Your task to perform on an android device: turn on wifi Image 0: 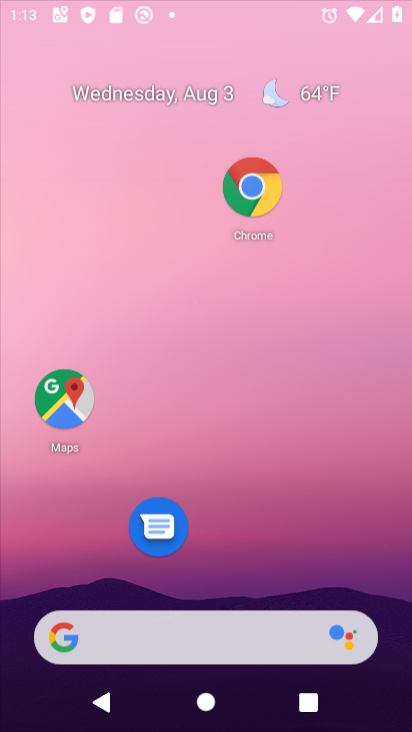
Step 0: click (403, 306)
Your task to perform on an android device: turn on wifi Image 1: 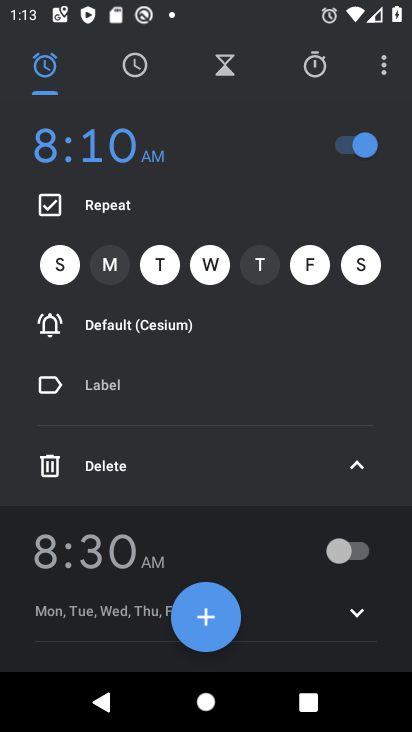
Step 1: press home button
Your task to perform on an android device: turn on wifi Image 2: 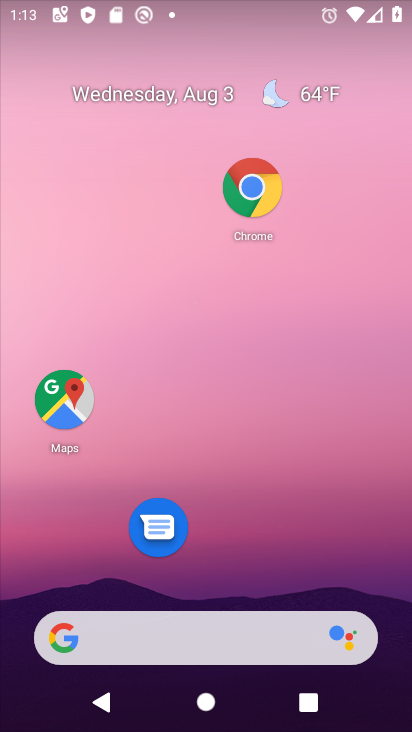
Step 2: drag from (236, 583) to (315, 5)
Your task to perform on an android device: turn on wifi Image 3: 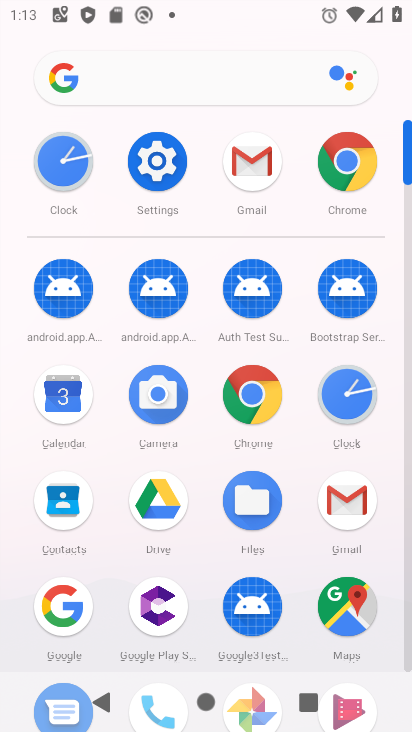
Step 3: click (154, 181)
Your task to perform on an android device: turn on wifi Image 4: 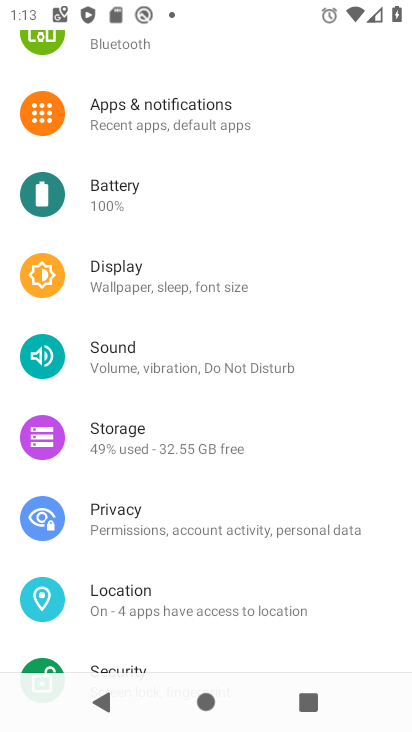
Step 4: drag from (163, 181) to (162, 725)
Your task to perform on an android device: turn on wifi Image 5: 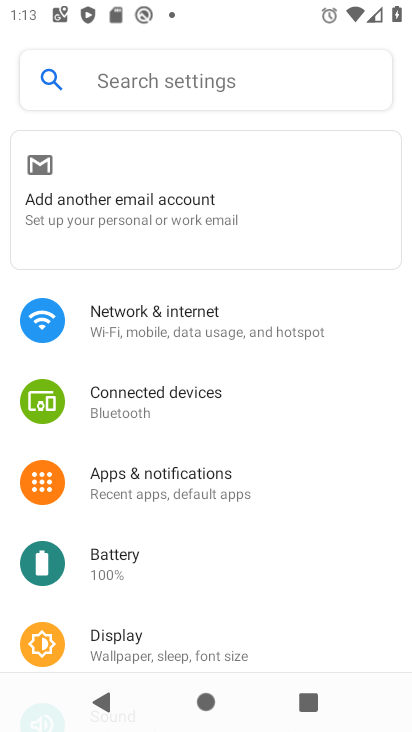
Step 5: click (178, 320)
Your task to perform on an android device: turn on wifi Image 6: 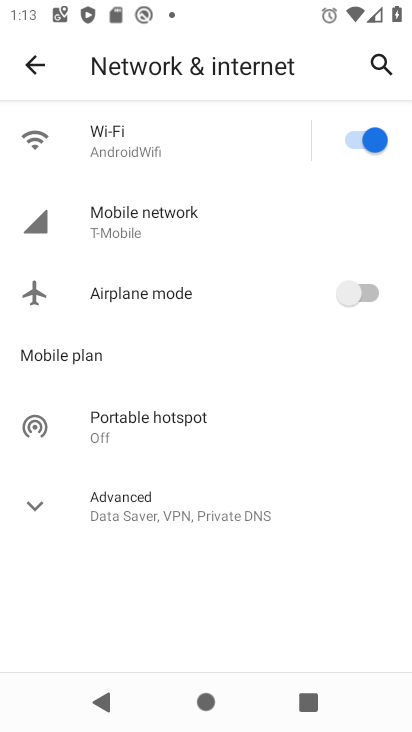
Step 6: task complete